Your task to perform on an android device: toggle javascript in the chrome app Image 0: 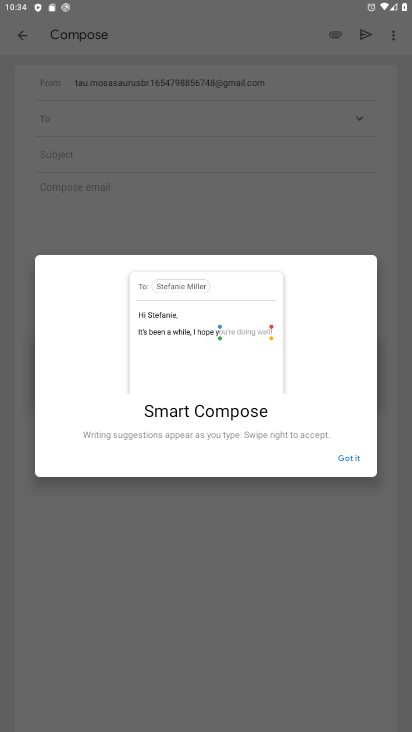
Step 0: press home button
Your task to perform on an android device: toggle javascript in the chrome app Image 1: 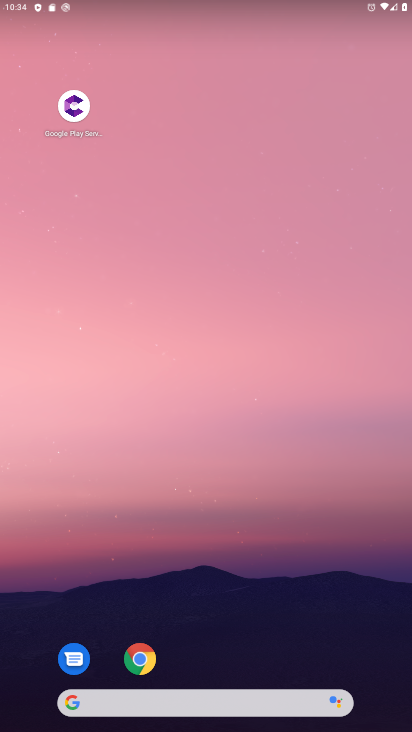
Step 1: click (149, 666)
Your task to perform on an android device: toggle javascript in the chrome app Image 2: 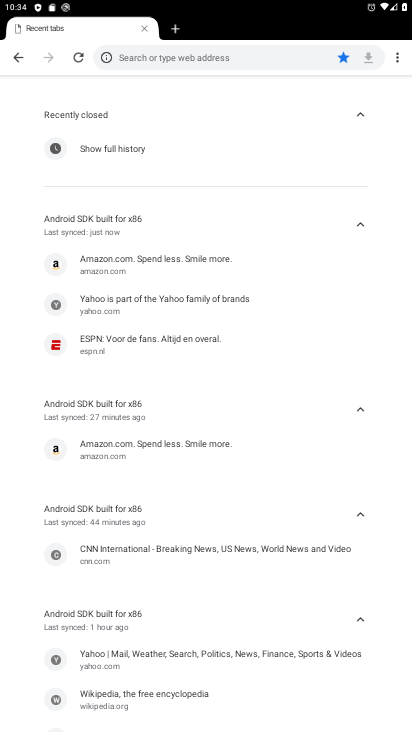
Step 2: click (400, 60)
Your task to perform on an android device: toggle javascript in the chrome app Image 3: 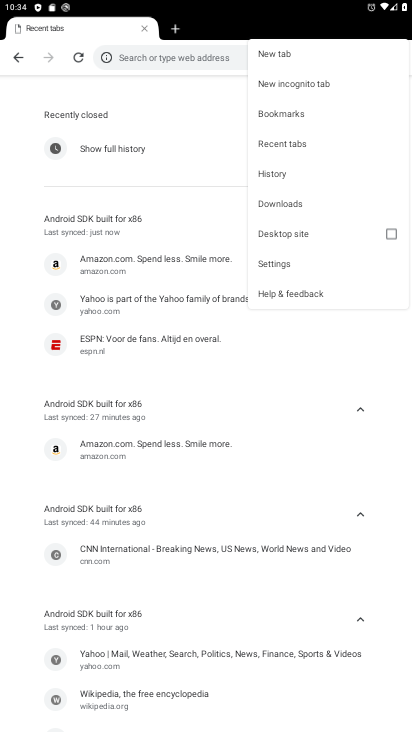
Step 3: click (292, 263)
Your task to perform on an android device: toggle javascript in the chrome app Image 4: 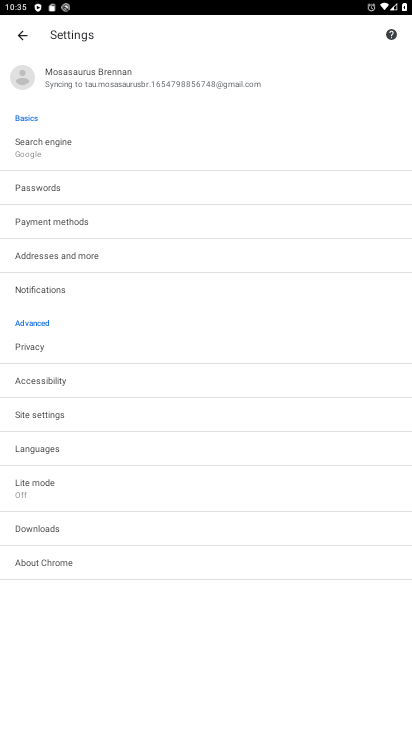
Step 4: click (82, 412)
Your task to perform on an android device: toggle javascript in the chrome app Image 5: 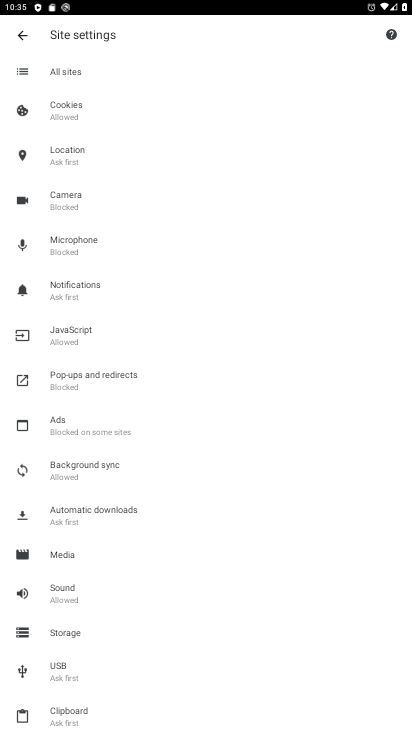
Step 5: click (115, 330)
Your task to perform on an android device: toggle javascript in the chrome app Image 6: 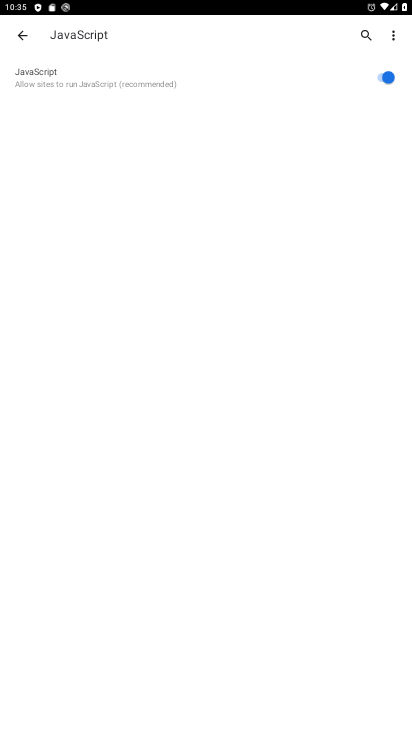
Step 6: click (387, 79)
Your task to perform on an android device: toggle javascript in the chrome app Image 7: 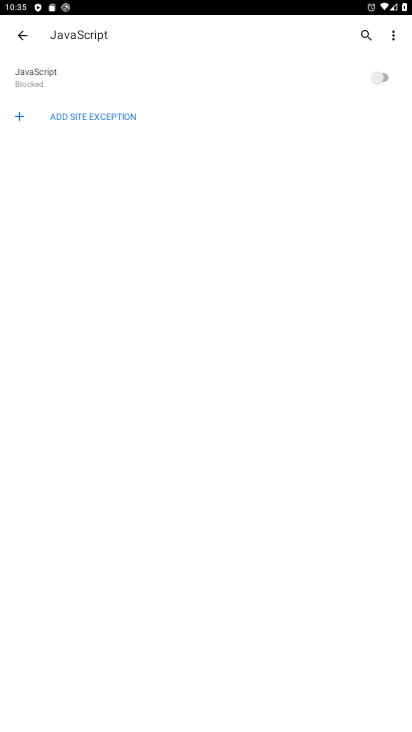
Step 7: task complete